Your task to perform on an android device: change timer sound Image 0: 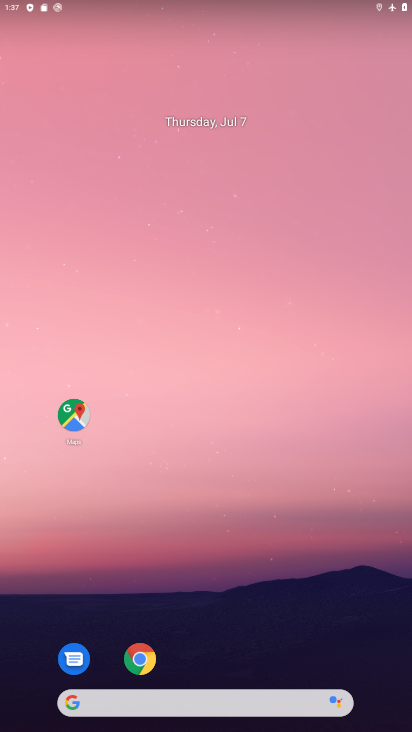
Step 0: drag from (241, 575) to (243, 166)
Your task to perform on an android device: change timer sound Image 1: 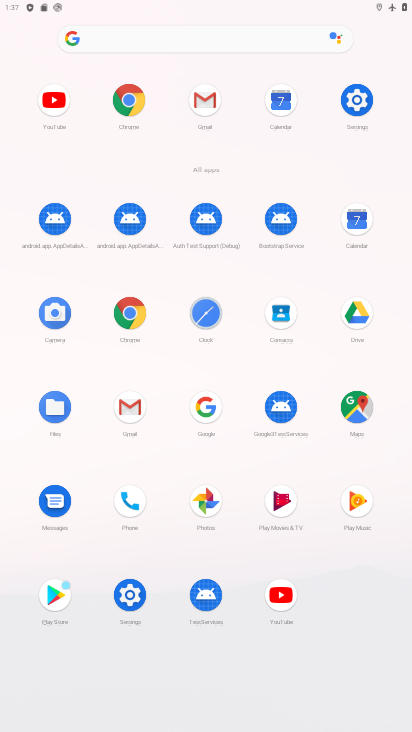
Step 1: click (324, 137)
Your task to perform on an android device: change timer sound Image 2: 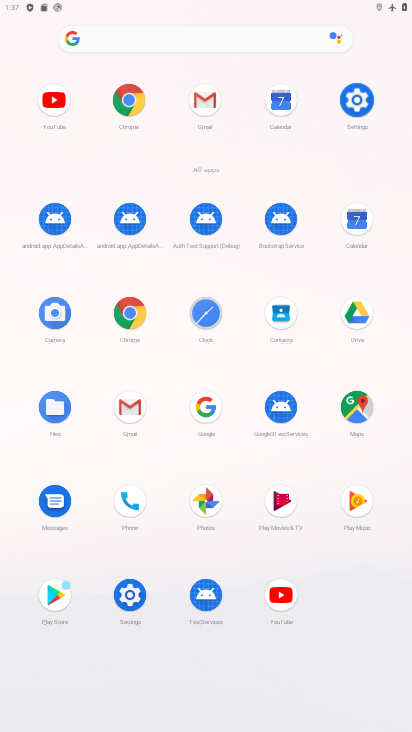
Step 2: click (325, 139)
Your task to perform on an android device: change timer sound Image 3: 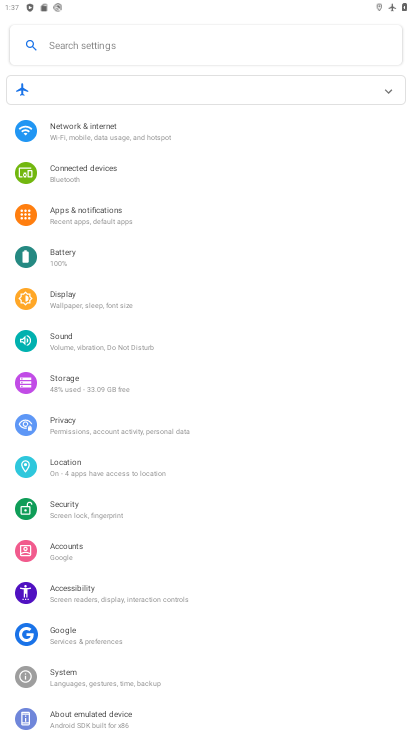
Step 3: press home button
Your task to perform on an android device: change timer sound Image 4: 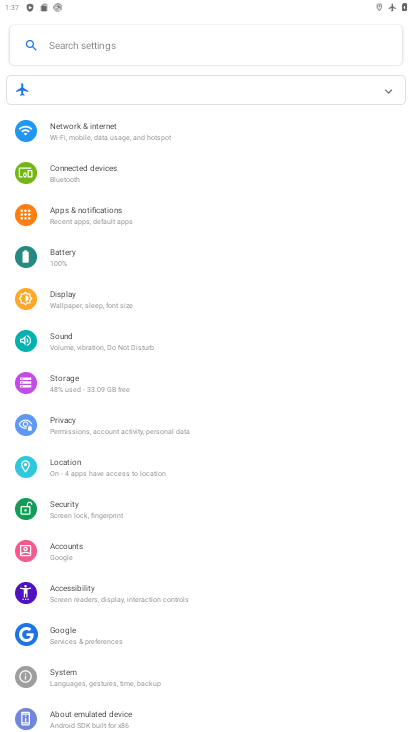
Step 4: press home button
Your task to perform on an android device: change timer sound Image 5: 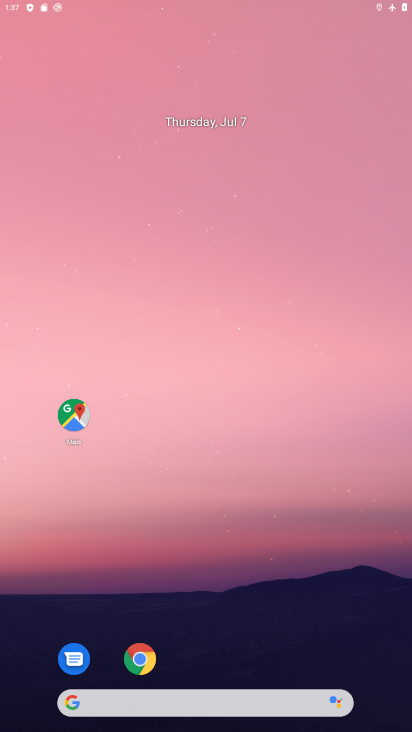
Step 5: press home button
Your task to perform on an android device: change timer sound Image 6: 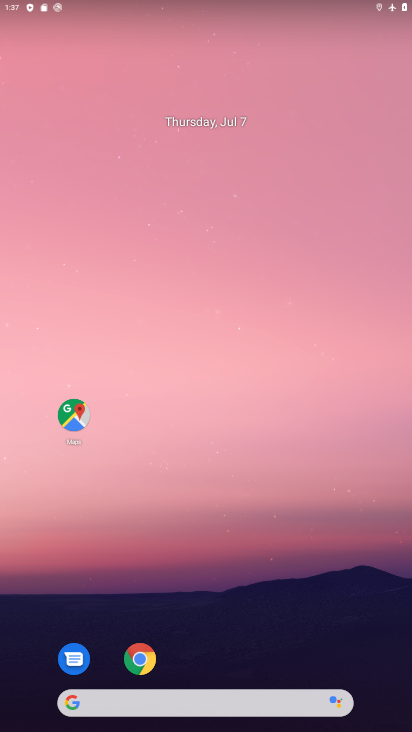
Step 6: press home button
Your task to perform on an android device: change timer sound Image 7: 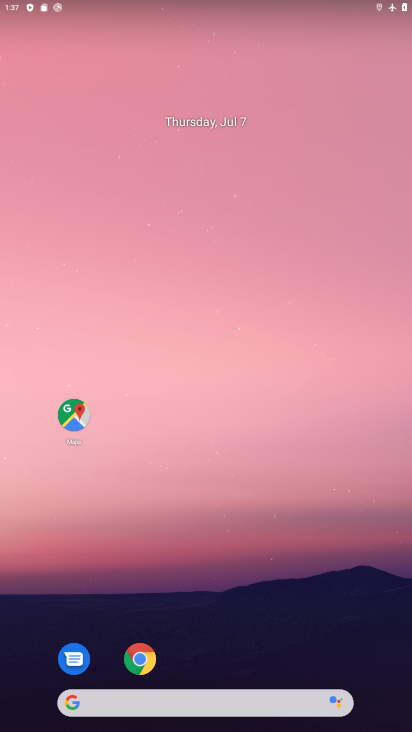
Step 7: drag from (206, 465) to (274, 119)
Your task to perform on an android device: change timer sound Image 8: 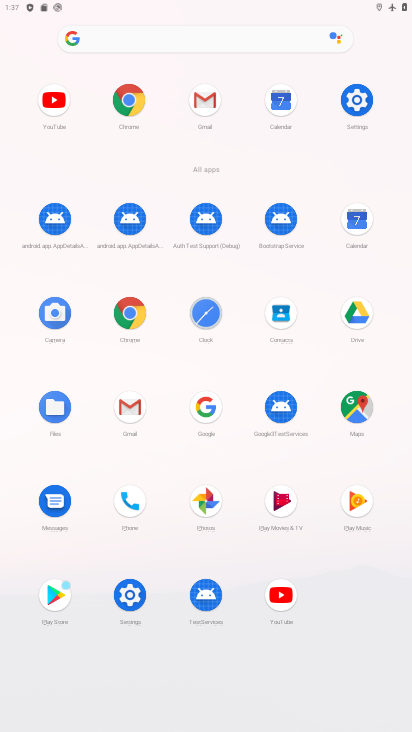
Step 8: drag from (336, 174) to (292, 385)
Your task to perform on an android device: change timer sound Image 9: 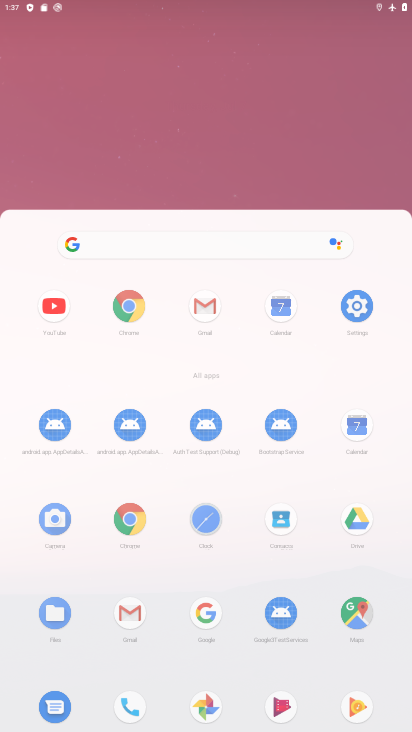
Step 9: drag from (283, 355) to (369, 316)
Your task to perform on an android device: change timer sound Image 10: 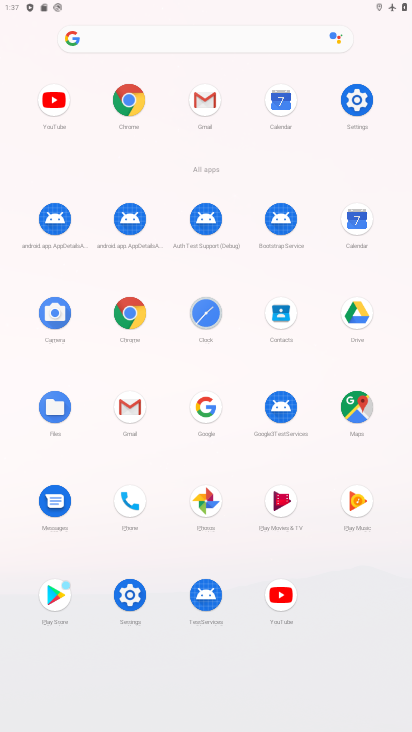
Step 10: click (212, 320)
Your task to perform on an android device: change timer sound Image 11: 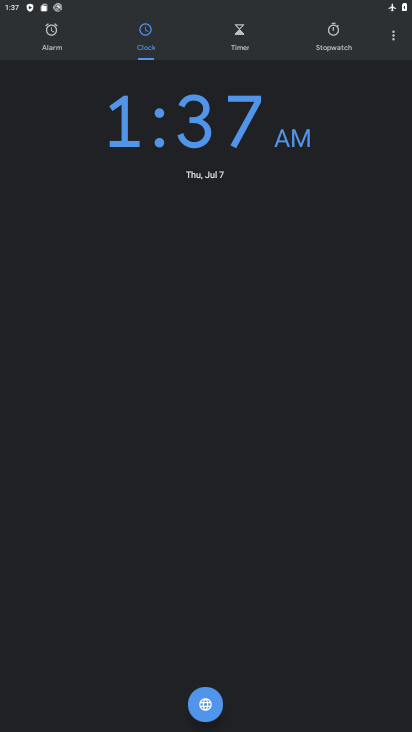
Step 11: click (398, 41)
Your task to perform on an android device: change timer sound Image 12: 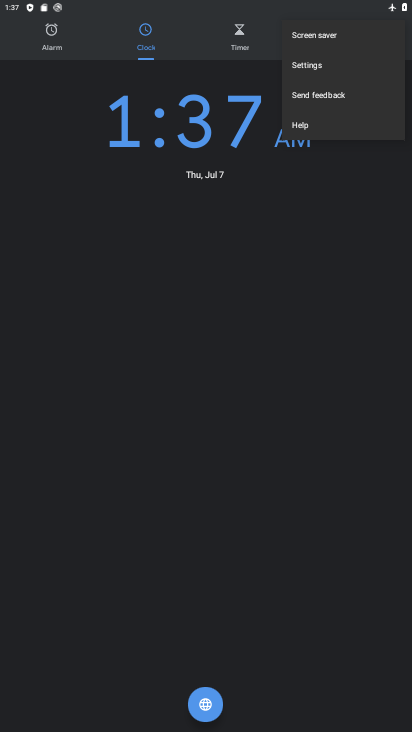
Step 12: click (307, 61)
Your task to perform on an android device: change timer sound Image 13: 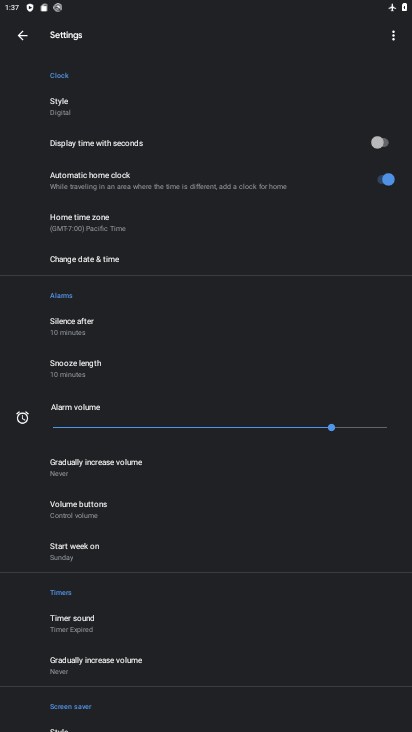
Step 13: click (313, 77)
Your task to perform on an android device: change timer sound Image 14: 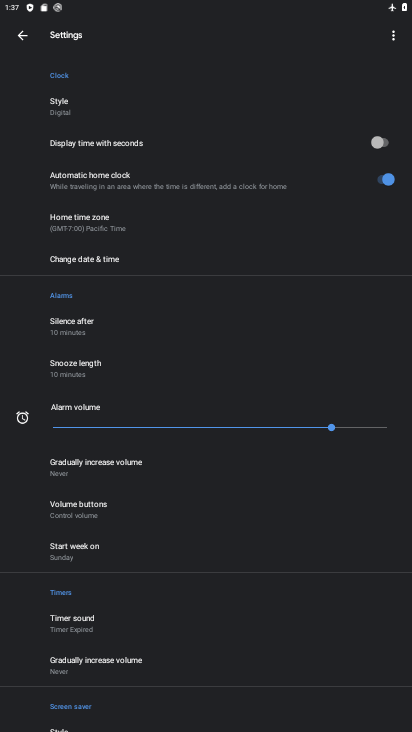
Step 14: click (98, 631)
Your task to perform on an android device: change timer sound Image 15: 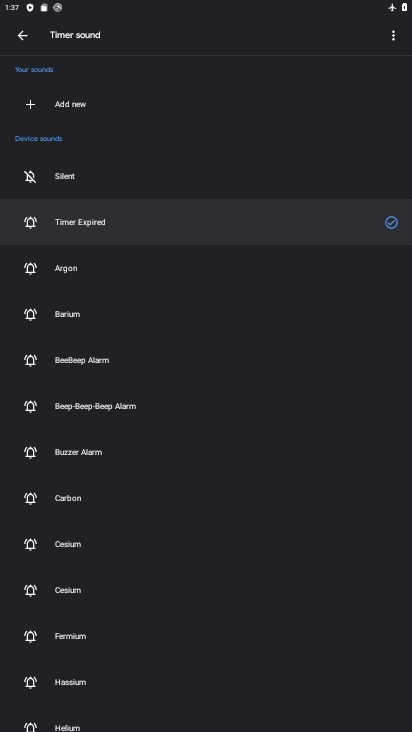
Step 15: click (86, 325)
Your task to perform on an android device: change timer sound Image 16: 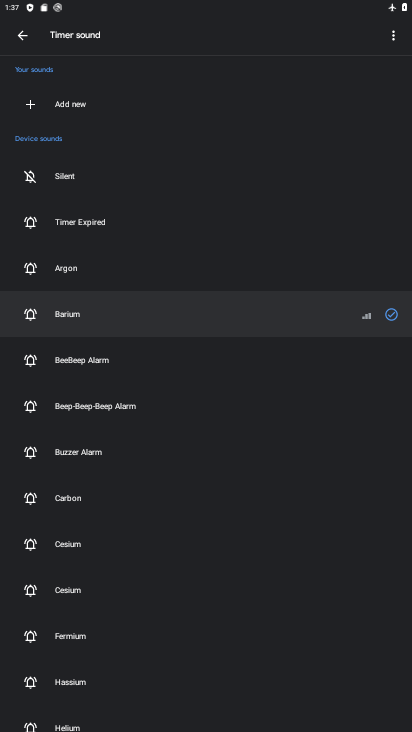
Step 16: click (93, 321)
Your task to perform on an android device: change timer sound Image 17: 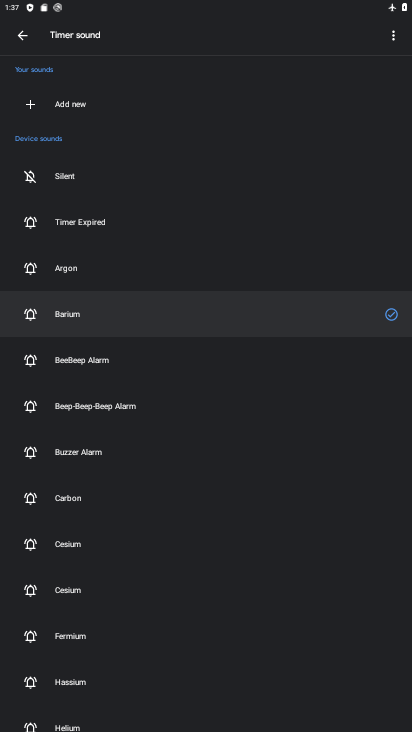
Step 17: task complete